Your task to perform on an android device: open sync settings in chrome Image 0: 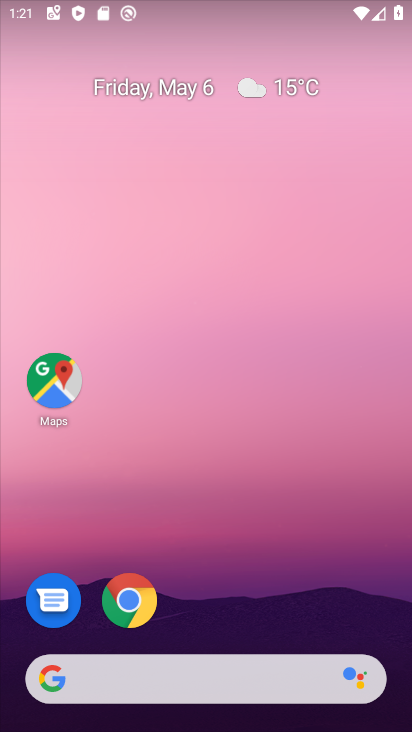
Step 0: drag from (281, 606) to (270, 0)
Your task to perform on an android device: open sync settings in chrome Image 1: 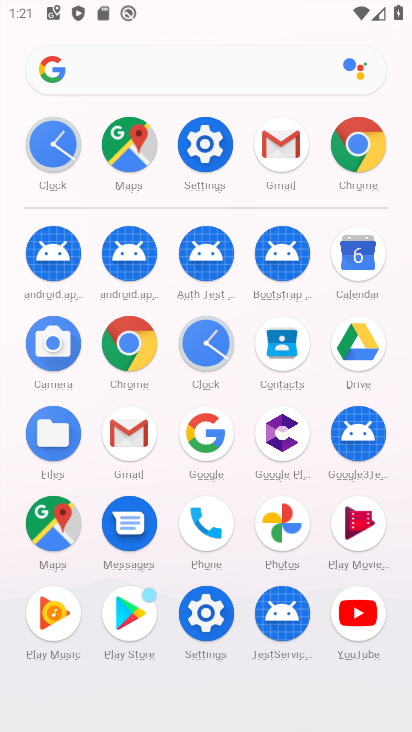
Step 1: click (359, 171)
Your task to perform on an android device: open sync settings in chrome Image 2: 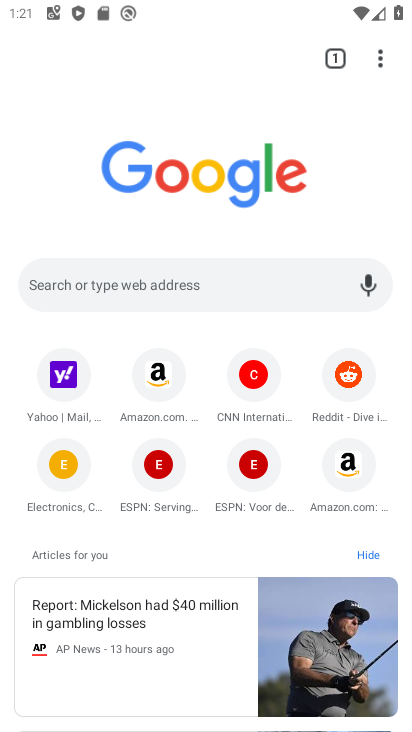
Step 2: click (384, 57)
Your task to perform on an android device: open sync settings in chrome Image 3: 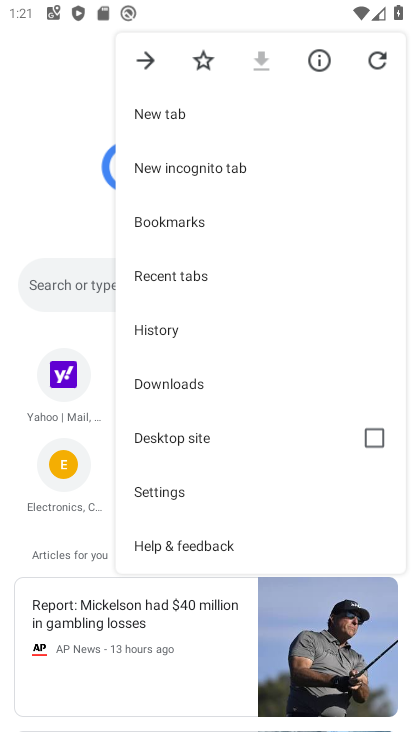
Step 3: click (177, 493)
Your task to perform on an android device: open sync settings in chrome Image 4: 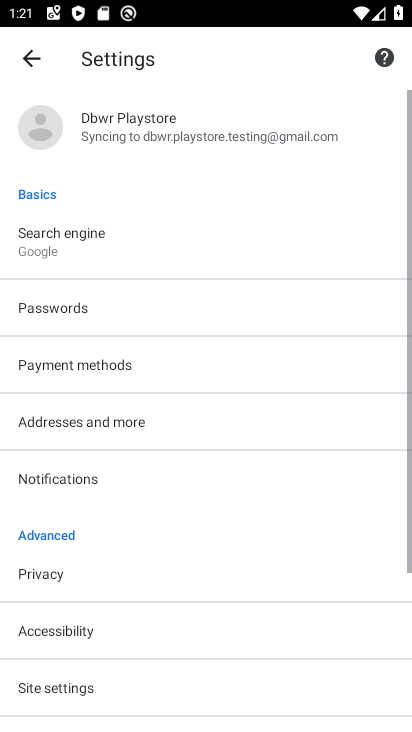
Step 4: drag from (97, 679) to (211, 280)
Your task to perform on an android device: open sync settings in chrome Image 5: 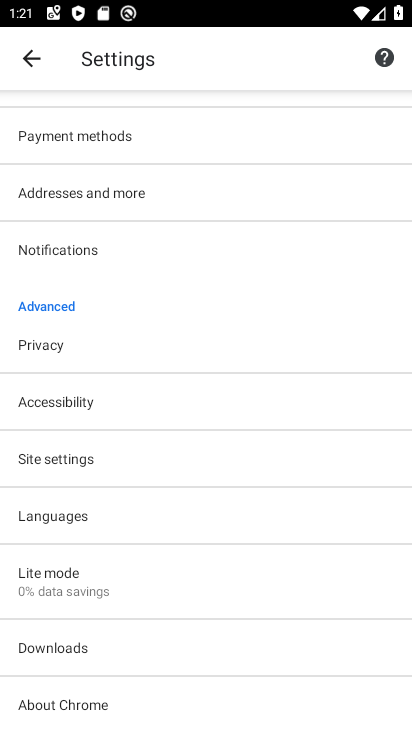
Step 5: click (149, 473)
Your task to perform on an android device: open sync settings in chrome Image 6: 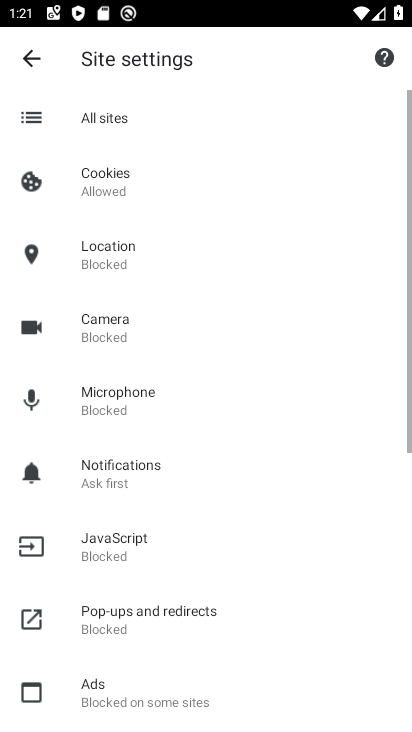
Step 6: drag from (139, 609) to (225, 274)
Your task to perform on an android device: open sync settings in chrome Image 7: 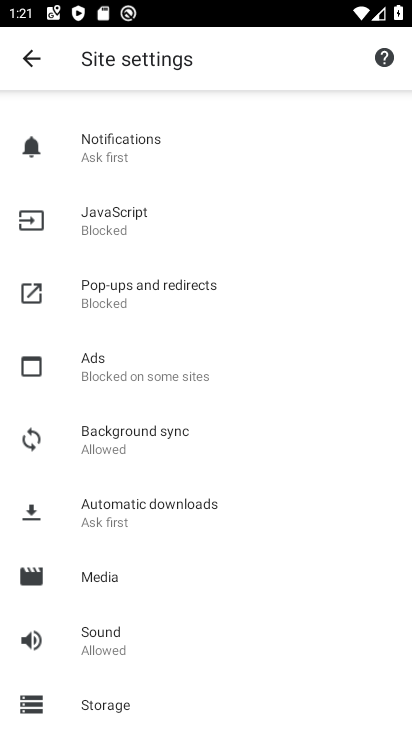
Step 7: click (166, 444)
Your task to perform on an android device: open sync settings in chrome Image 8: 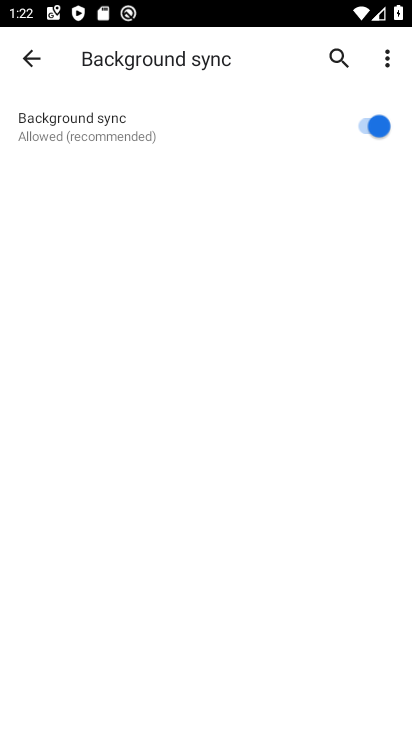
Step 8: task complete